Your task to perform on an android device: Go to battery settings Image 0: 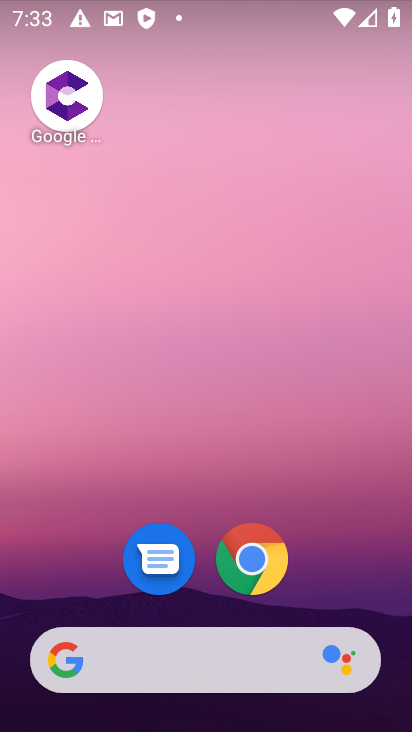
Step 0: drag from (204, 561) to (175, 15)
Your task to perform on an android device: Go to battery settings Image 1: 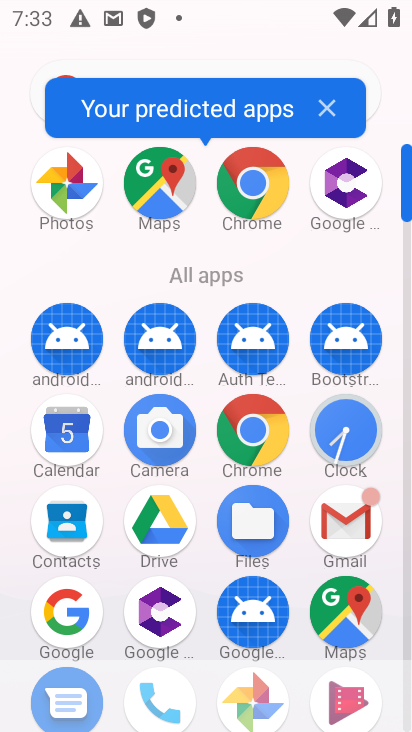
Step 1: drag from (198, 425) to (313, 17)
Your task to perform on an android device: Go to battery settings Image 2: 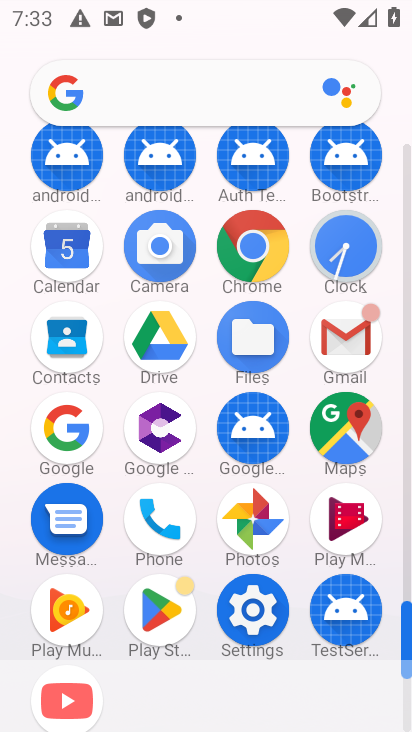
Step 2: click (245, 608)
Your task to perform on an android device: Go to battery settings Image 3: 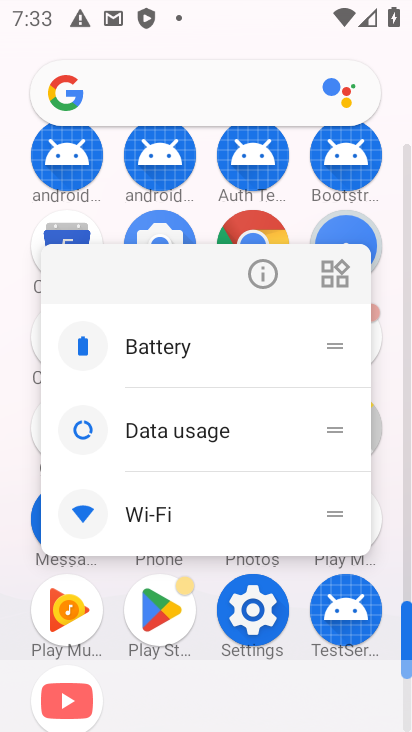
Step 3: click (237, 622)
Your task to perform on an android device: Go to battery settings Image 4: 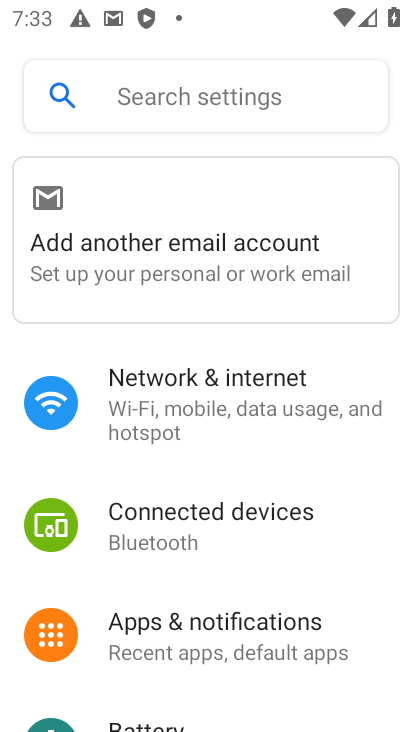
Step 4: drag from (242, 648) to (243, 558)
Your task to perform on an android device: Go to battery settings Image 5: 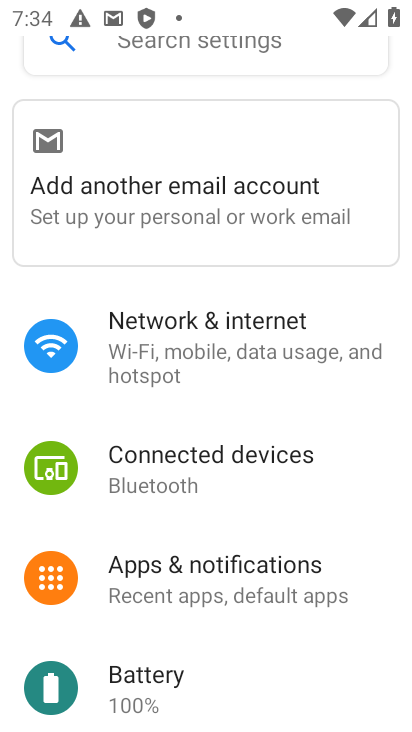
Step 5: click (162, 700)
Your task to perform on an android device: Go to battery settings Image 6: 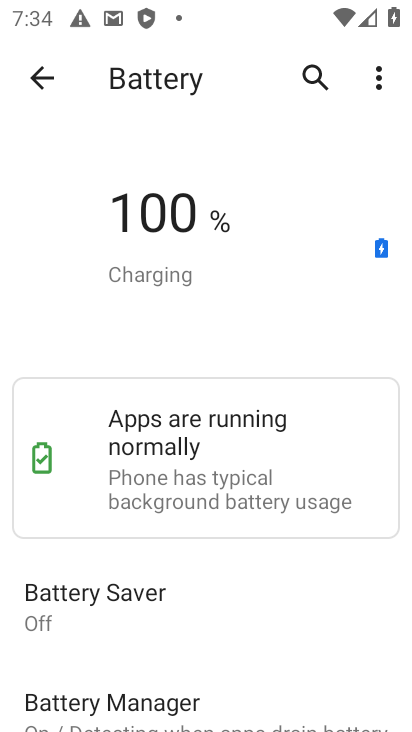
Step 6: task complete